Your task to perform on an android device: Open the Play Movies app and select the watchlist tab. Image 0: 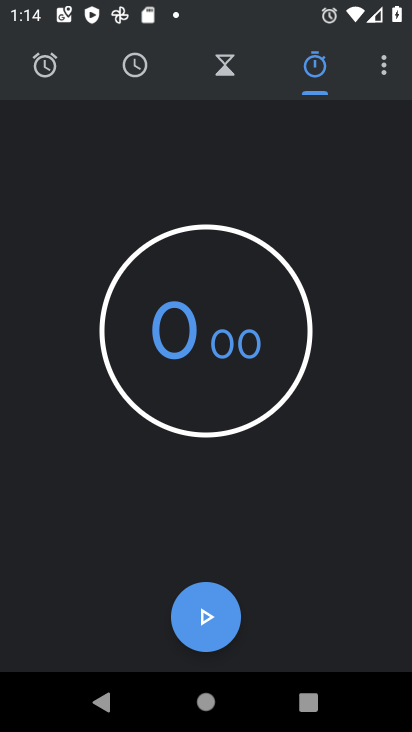
Step 0: press home button
Your task to perform on an android device: Open the Play Movies app and select the watchlist tab. Image 1: 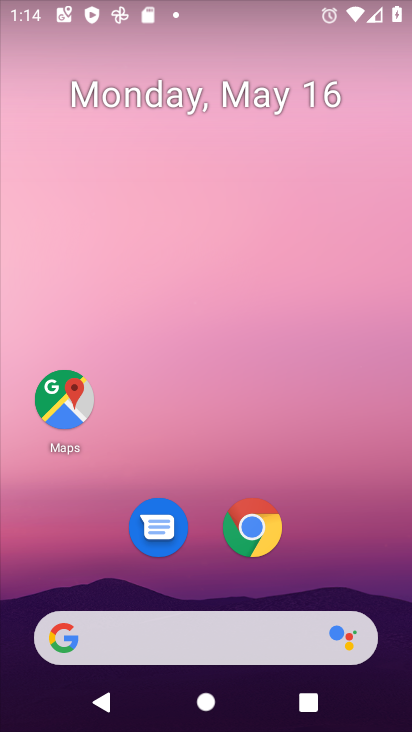
Step 1: drag from (372, 506) to (352, 163)
Your task to perform on an android device: Open the Play Movies app and select the watchlist tab. Image 2: 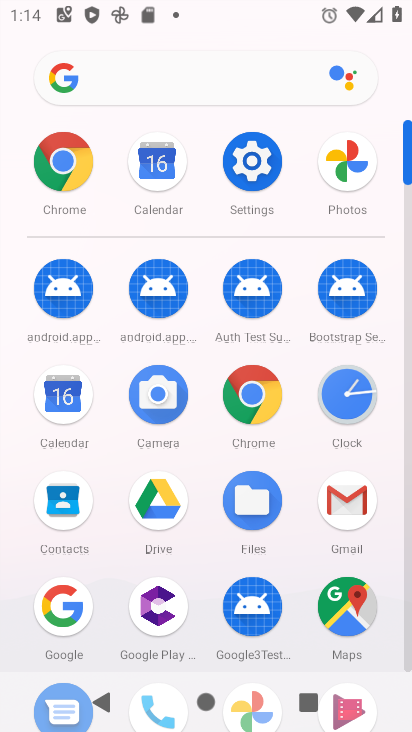
Step 2: click (410, 625)
Your task to perform on an android device: Open the Play Movies app and select the watchlist tab. Image 3: 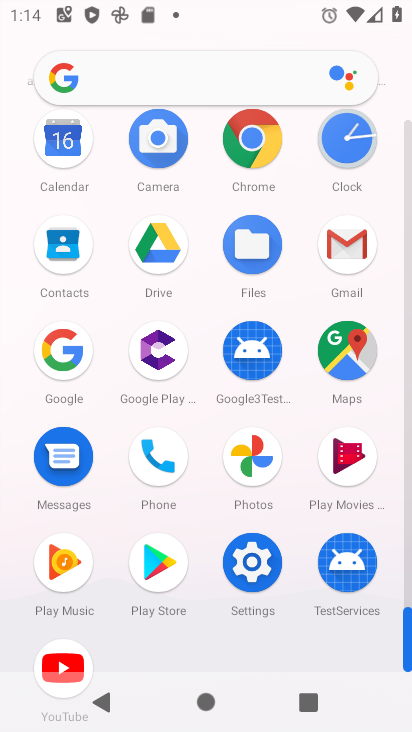
Step 3: click (341, 469)
Your task to perform on an android device: Open the Play Movies app and select the watchlist tab. Image 4: 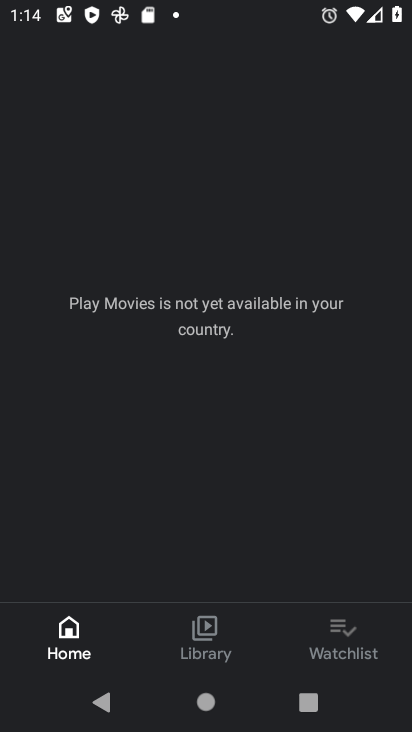
Step 4: click (346, 646)
Your task to perform on an android device: Open the Play Movies app and select the watchlist tab. Image 5: 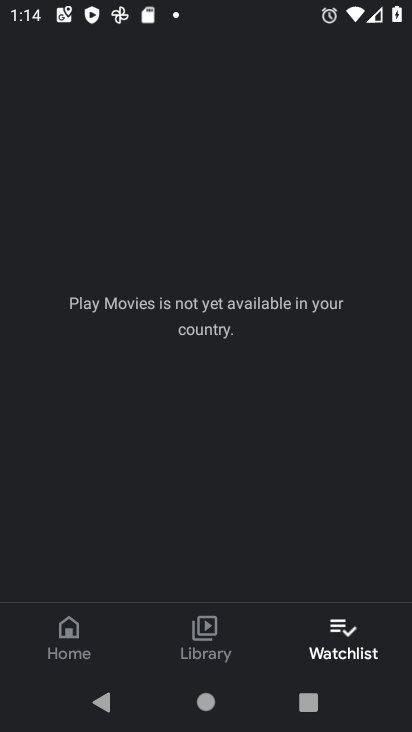
Step 5: click (346, 646)
Your task to perform on an android device: Open the Play Movies app and select the watchlist tab. Image 6: 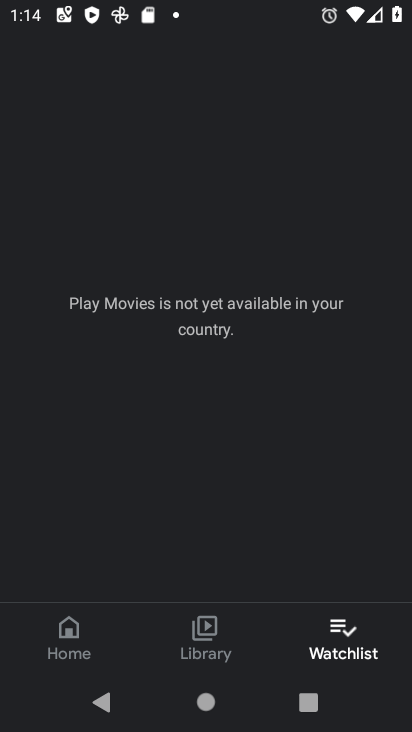
Step 6: click (346, 646)
Your task to perform on an android device: Open the Play Movies app and select the watchlist tab. Image 7: 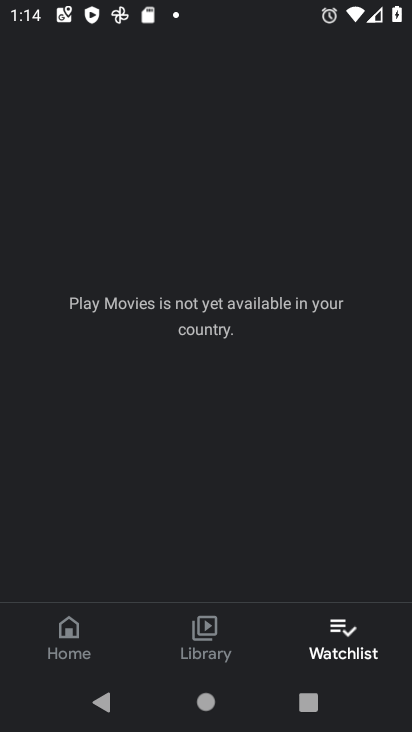
Step 7: task complete